Your task to perform on an android device: find photos in the google photos app Image 0: 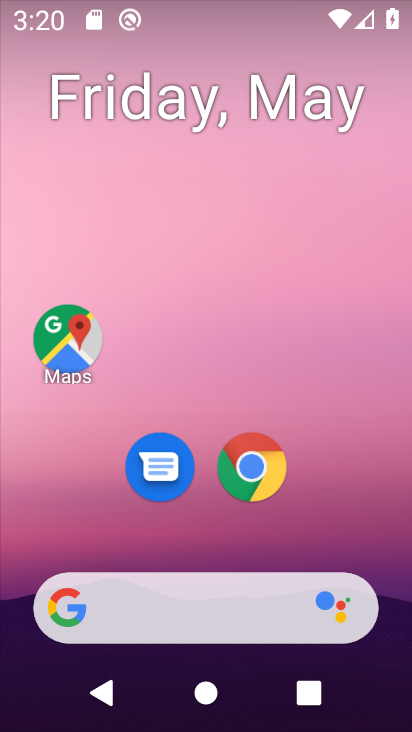
Step 0: drag from (232, 542) to (186, 17)
Your task to perform on an android device: find photos in the google photos app Image 1: 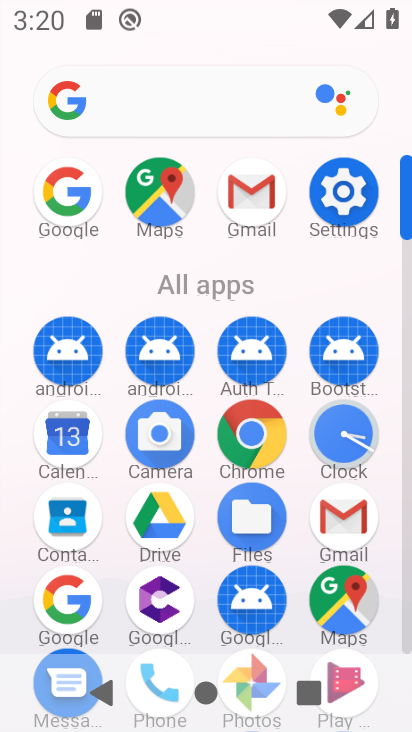
Step 1: drag from (289, 632) to (265, 257)
Your task to perform on an android device: find photos in the google photos app Image 2: 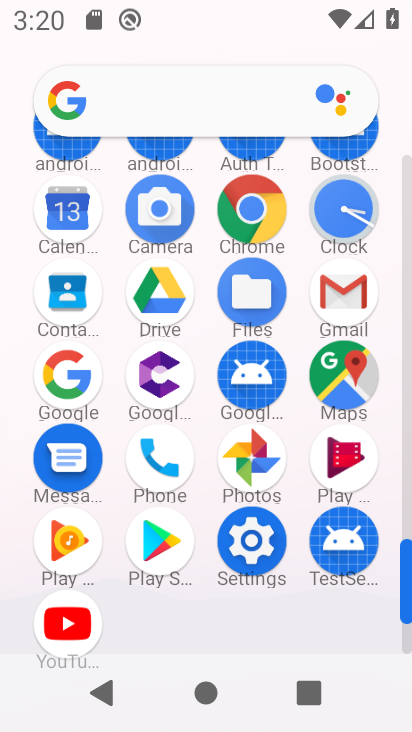
Step 2: click (260, 452)
Your task to perform on an android device: find photos in the google photos app Image 3: 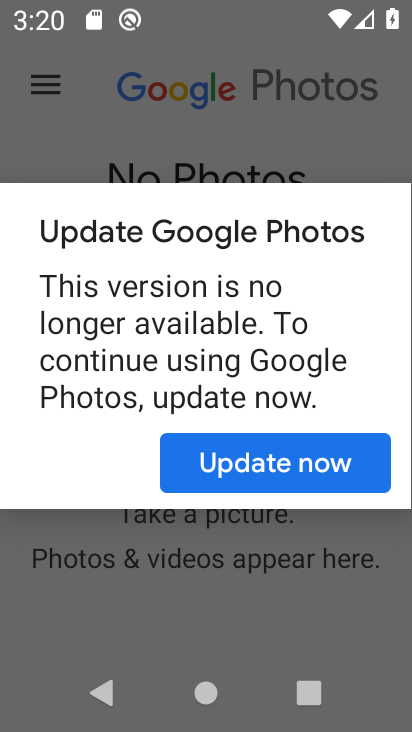
Step 3: click (266, 470)
Your task to perform on an android device: find photos in the google photos app Image 4: 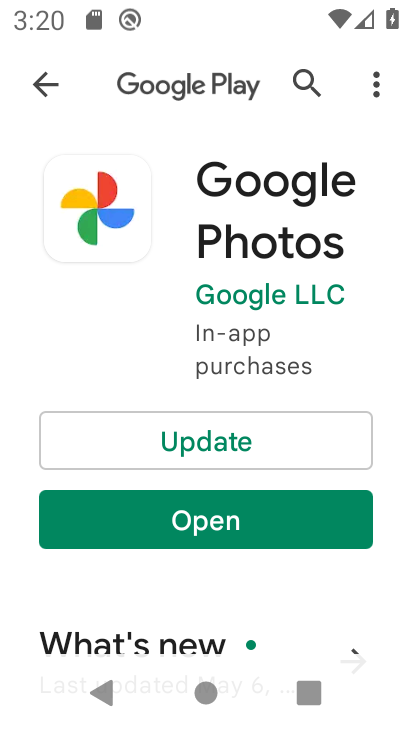
Step 4: click (221, 450)
Your task to perform on an android device: find photos in the google photos app Image 5: 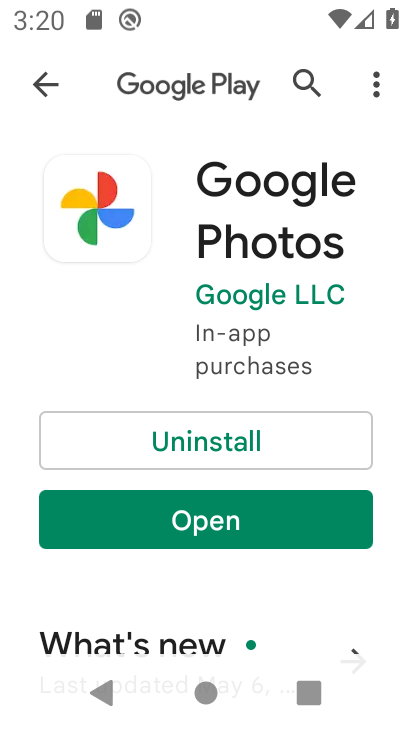
Step 5: click (224, 518)
Your task to perform on an android device: find photos in the google photos app Image 6: 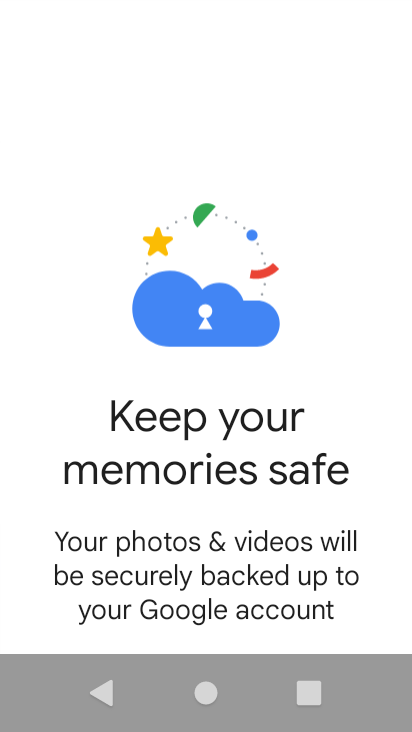
Step 6: click (238, 530)
Your task to perform on an android device: find photos in the google photos app Image 7: 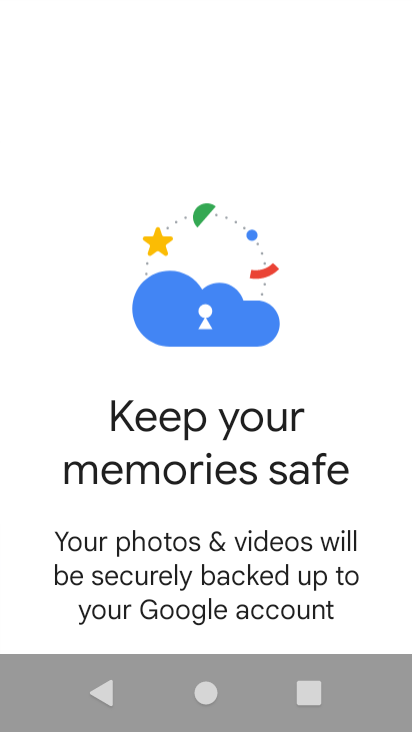
Step 7: click (236, 312)
Your task to perform on an android device: find photos in the google photos app Image 8: 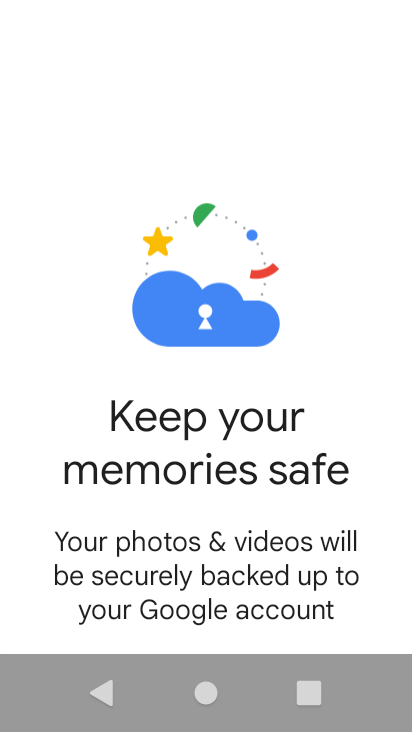
Step 8: drag from (356, 556) to (104, 521)
Your task to perform on an android device: find photos in the google photos app Image 9: 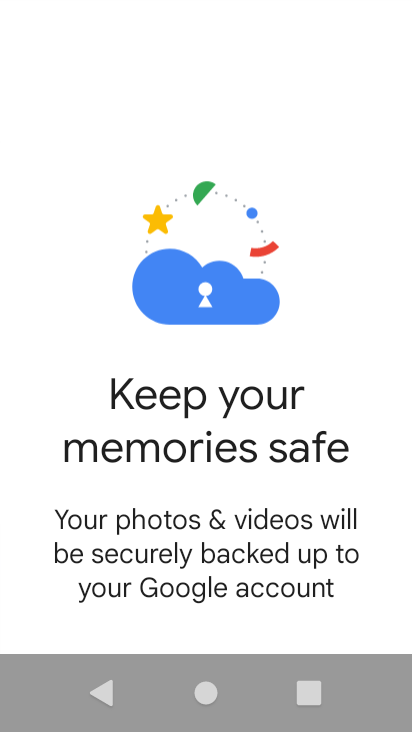
Step 9: drag from (225, 549) to (219, 68)
Your task to perform on an android device: find photos in the google photos app Image 10: 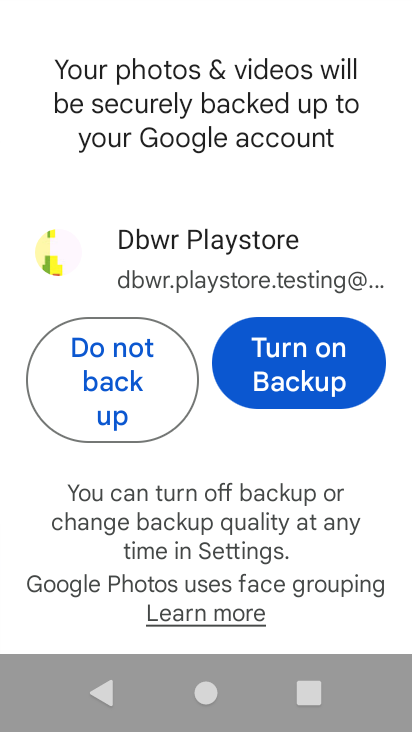
Step 10: drag from (244, 457) to (226, 408)
Your task to perform on an android device: find photos in the google photos app Image 11: 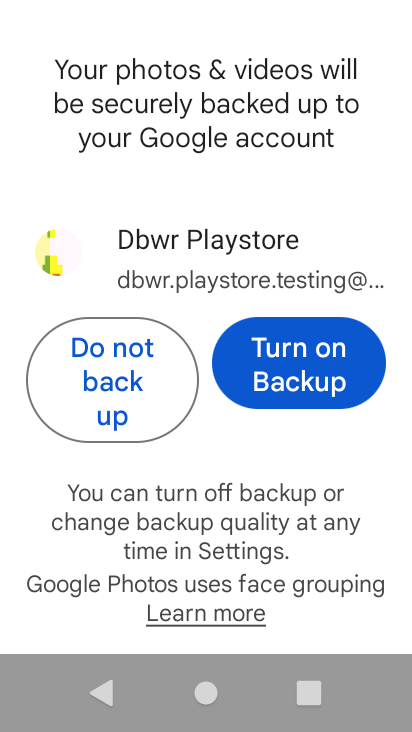
Step 11: click (110, 381)
Your task to perform on an android device: find photos in the google photos app Image 12: 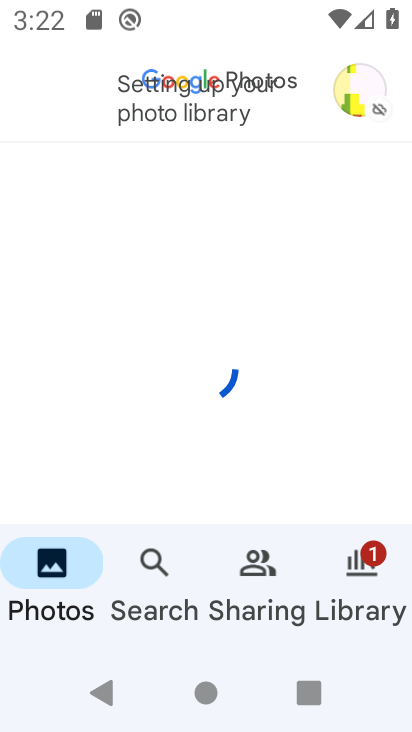
Step 12: task complete